Your task to perform on an android device: Turn off the flashlight Image 0: 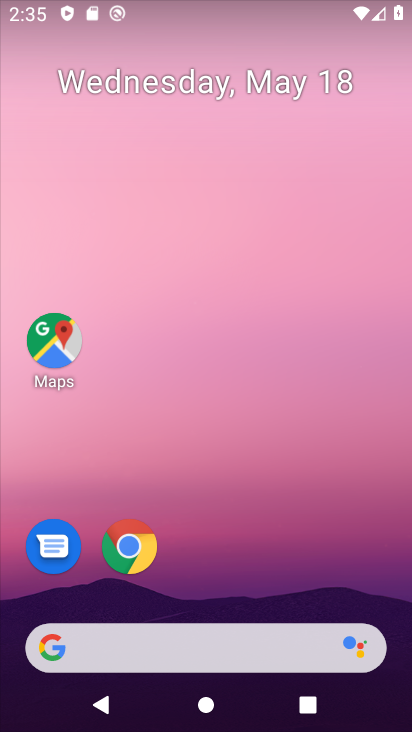
Step 0: drag from (225, 721) to (247, 180)
Your task to perform on an android device: Turn off the flashlight Image 1: 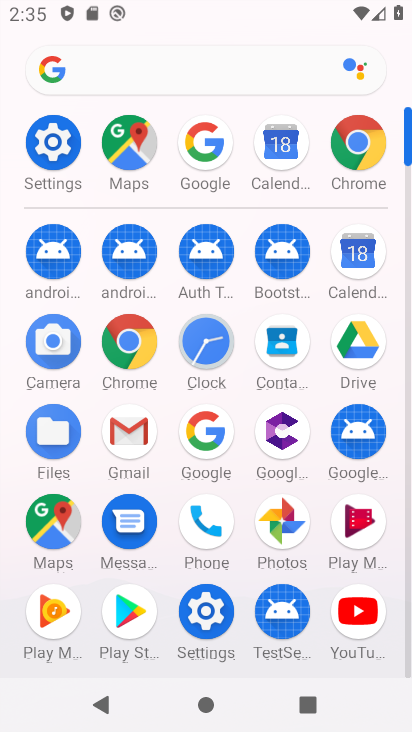
Step 1: click (56, 144)
Your task to perform on an android device: Turn off the flashlight Image 2: 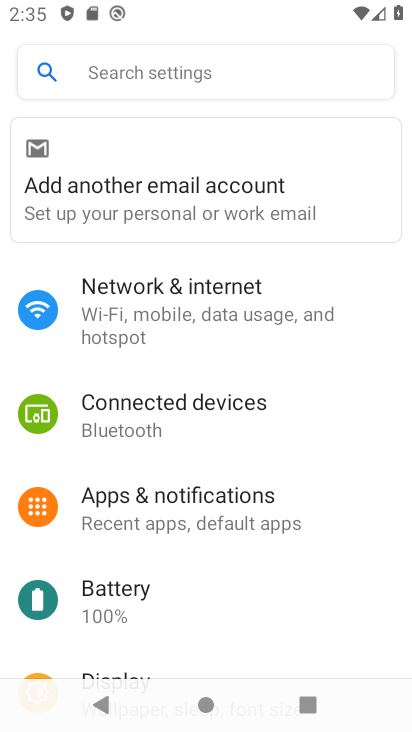
Step 2: task complete